Your task to perform on an android device: Go to Maps Image 0: 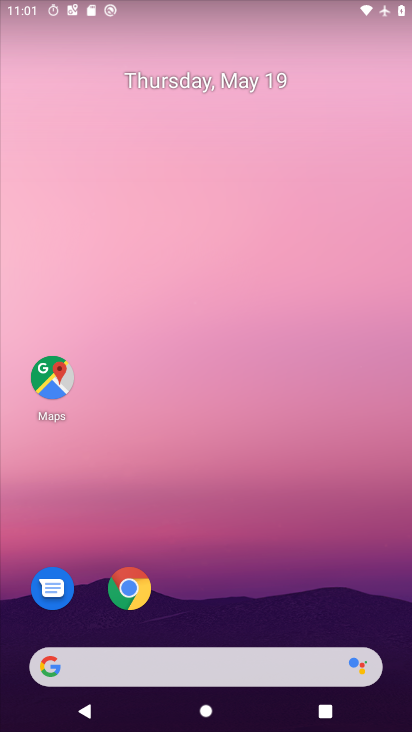
Step 0: press home button
Your task to perform on an android device: Go to Maps Image 1: 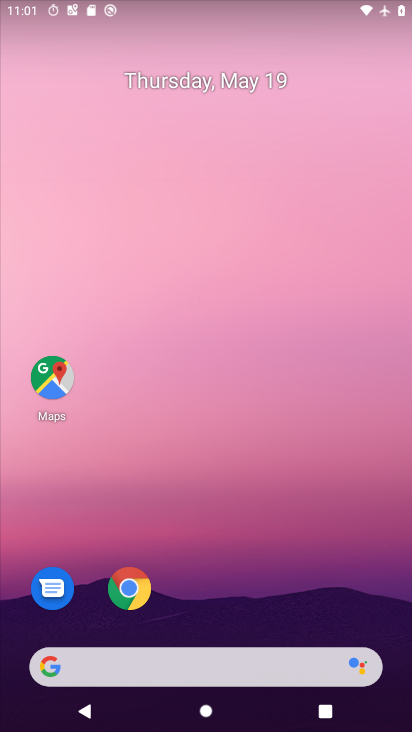
Step 1: click (59, 379)
Your task to perform on an android device: Go to Maps Image 2: 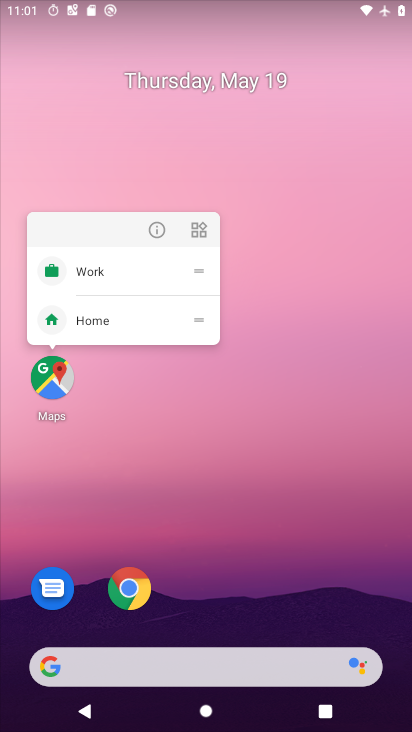
Step 2: click (50, 379)
Your task to perform on an android device: Go to Maps Image 3: 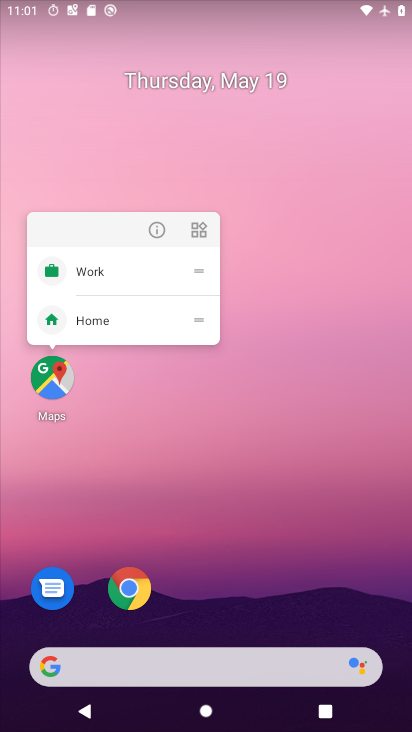
Step 3: click (46, 392)
Your task to perform on an android device: Go to Maps Image 4: 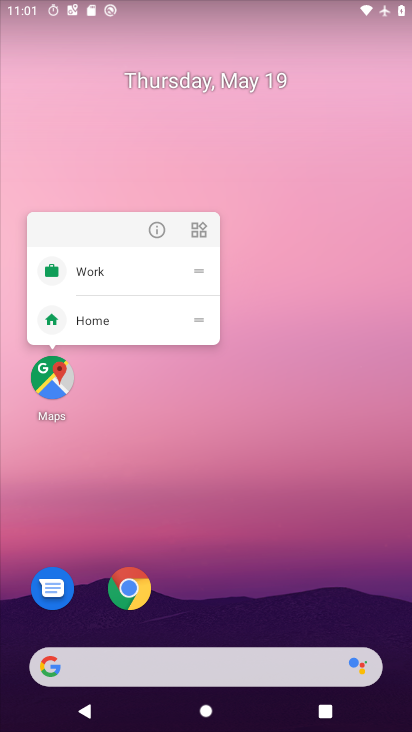
Step 4: click (52, 386)
Your task to perform on an android device: Go to Maps Image 5: 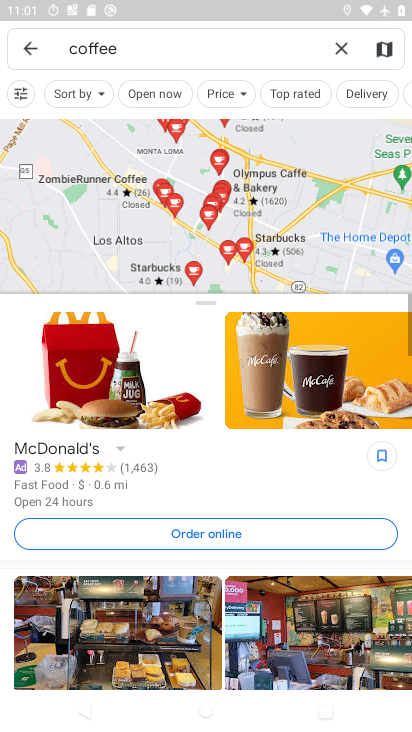
Step 5: click (30, 46)
Your task to perform on an android device: Go to Maps Image 6: 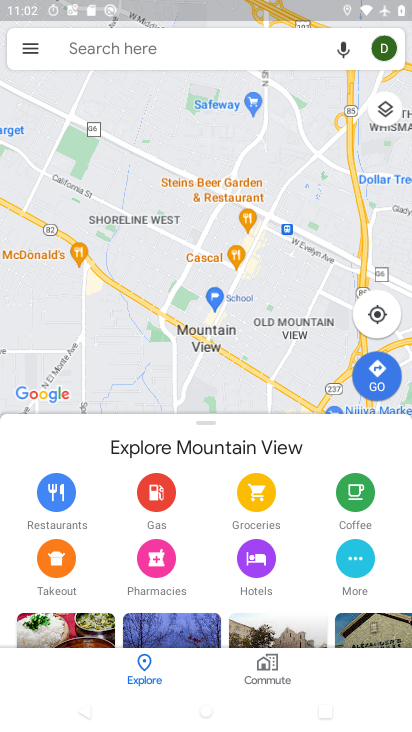
Step 6: task complete